Your task to perform on an android device: open app "VLC for Android" Image 0: 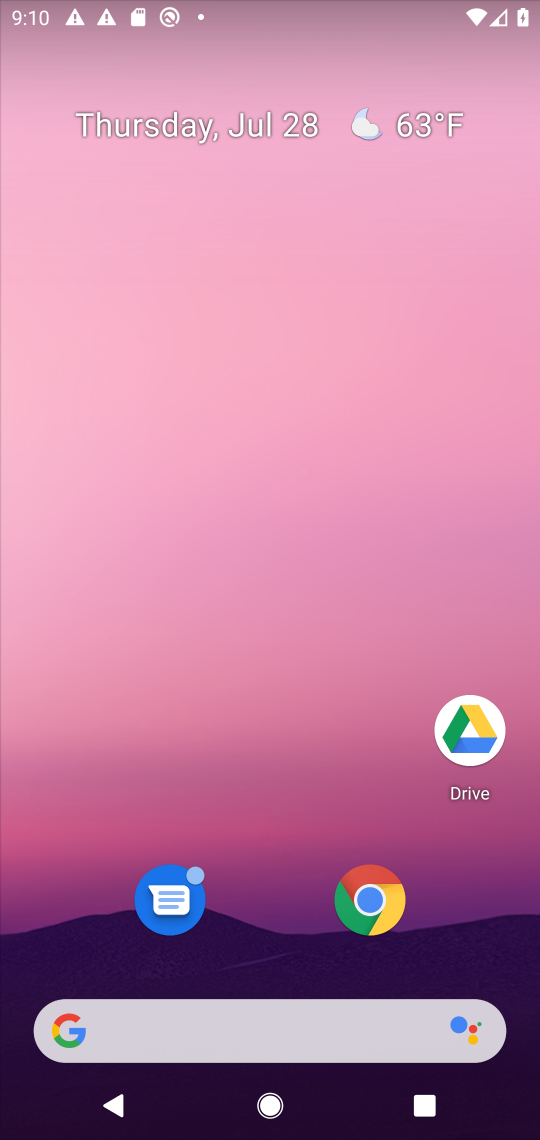
Step 0: drag from (307, 765) to (348, 275)
Your task to perform on an android device: open app "VLC for Android" Image 1: 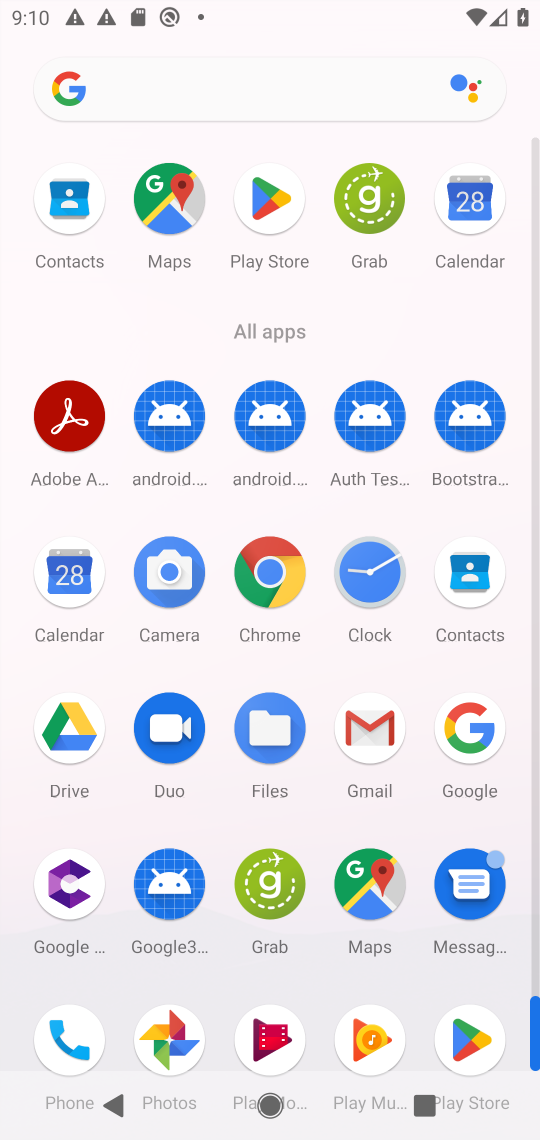
Step 1: task complete